Your task to perform on an android device: Open wifi settings Image 0: 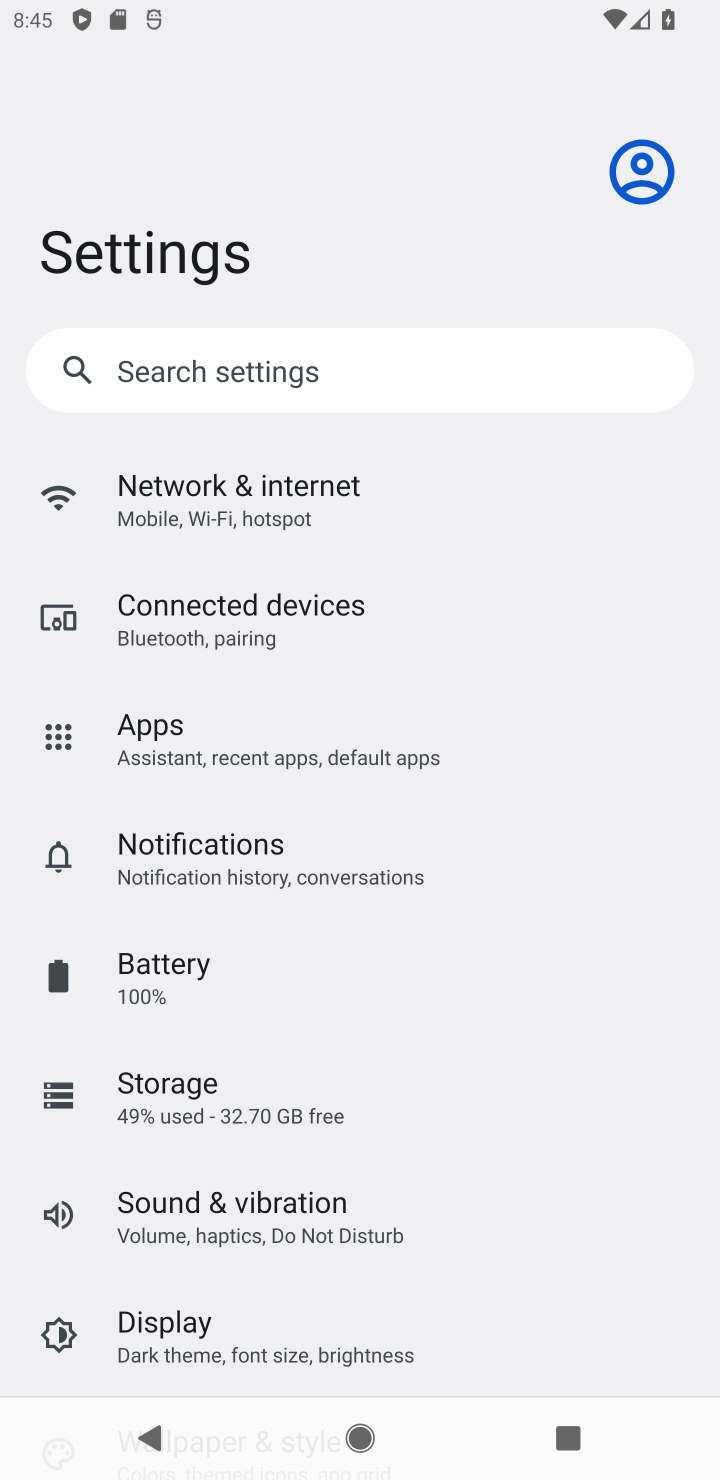
Step 0: click (278, 491)
Your task to perform on an android device: Open wifi settings Image 1: 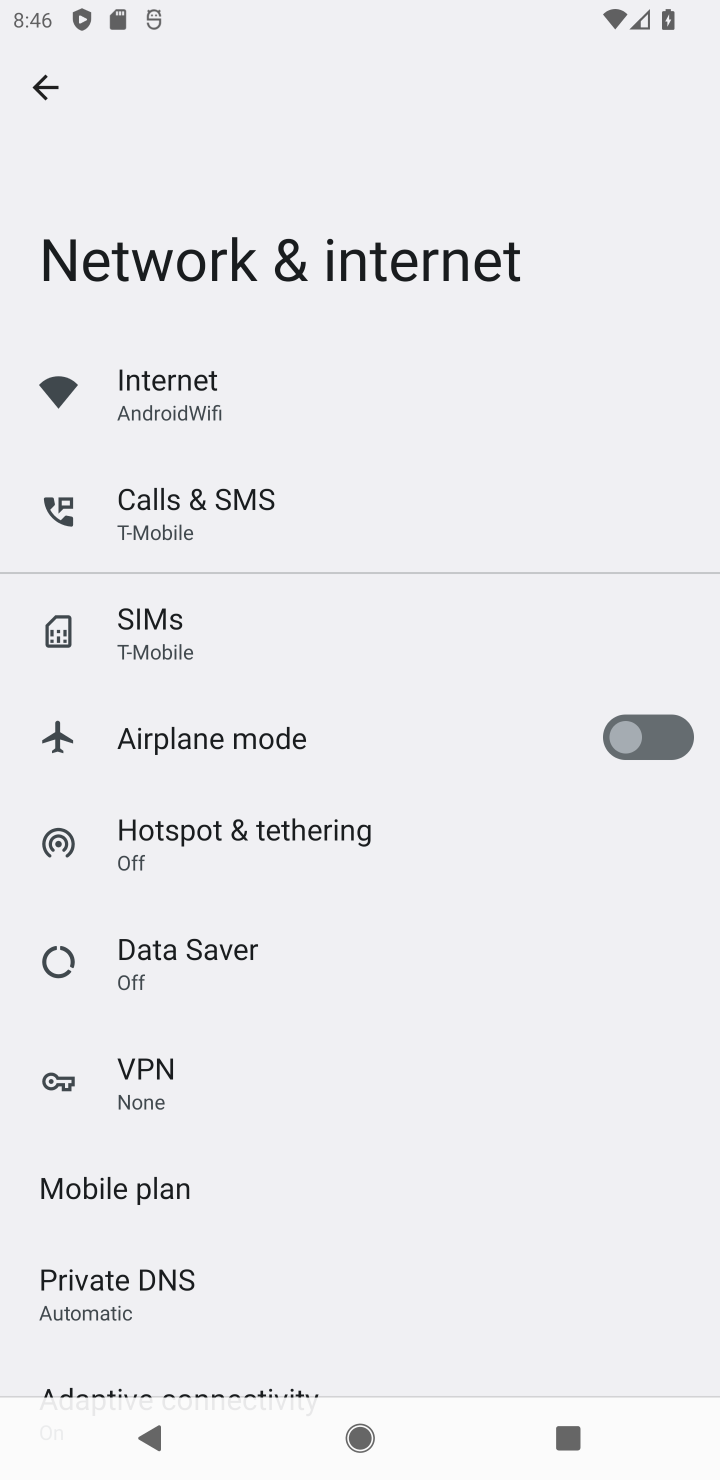
Step 1: click (338, 348)
Your task to perform on an android device: Open wifi settings Image 2: 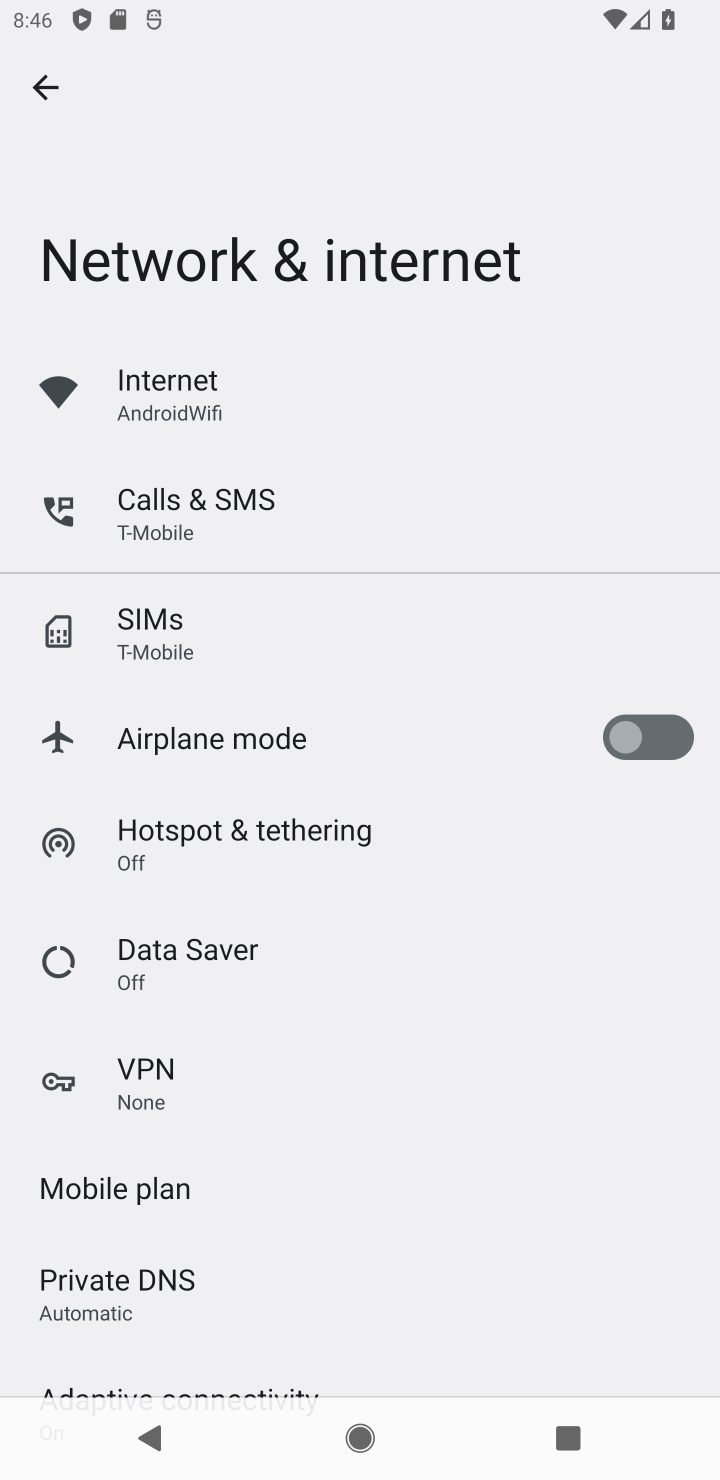
Step 2: click (201, 392)
Your task to perform on an android device: Open wifi settings Image 3: 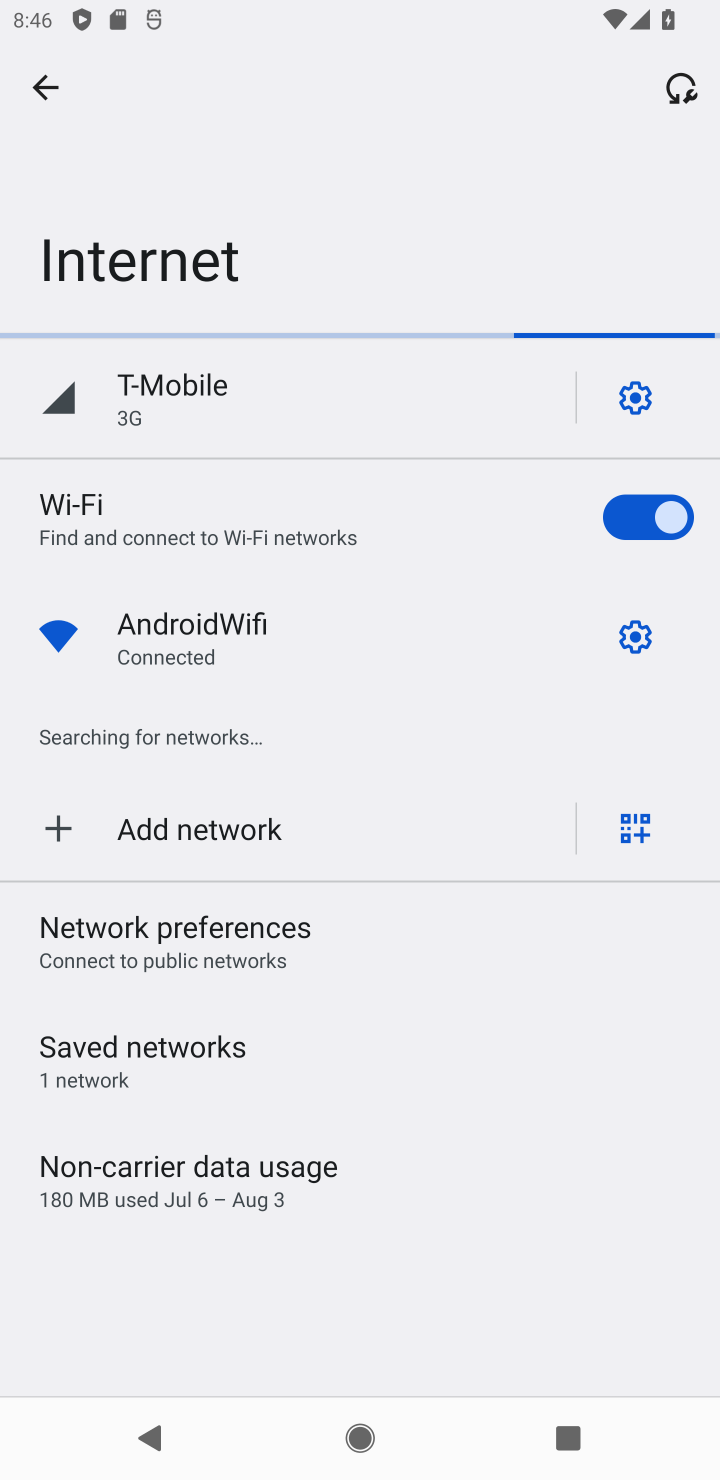
Step 3: click (311, 643)
Your task to perform on an android device: Open wifi settings Image 4: 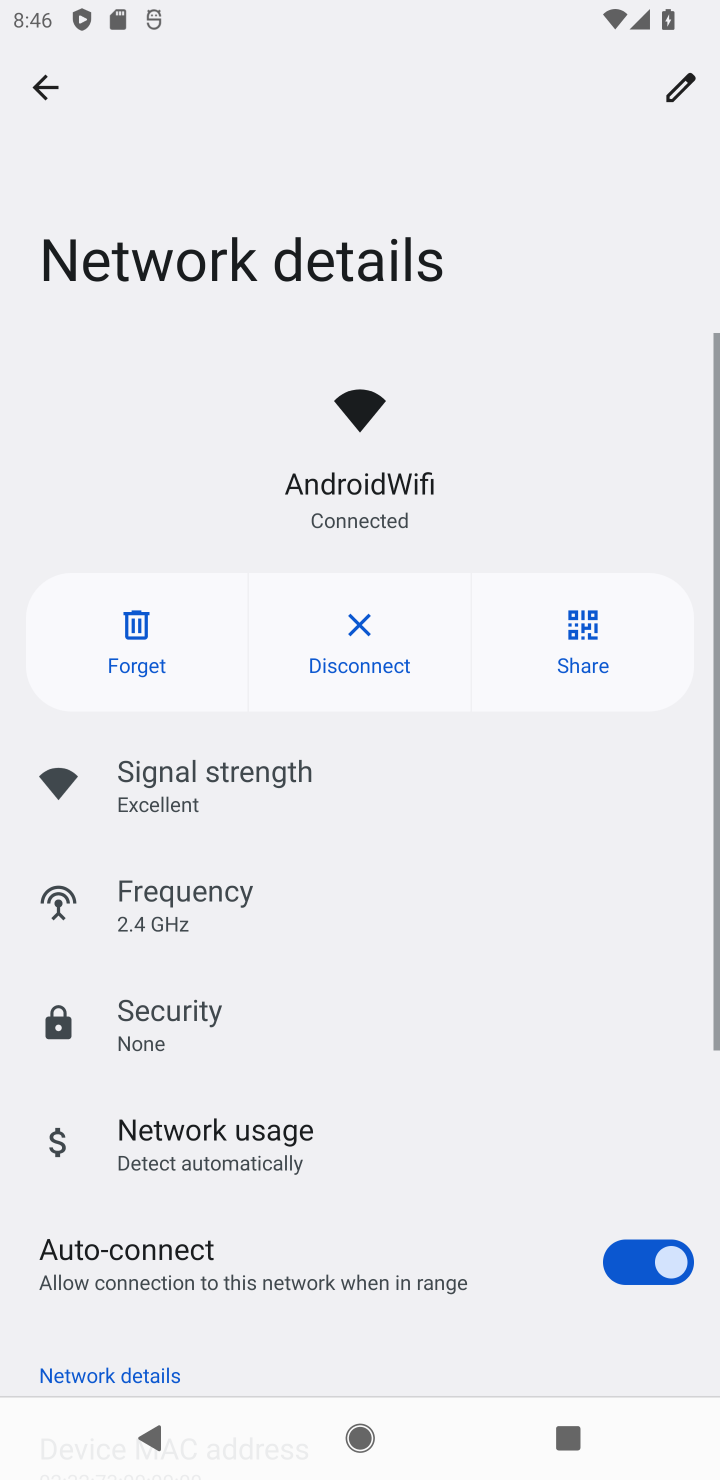
Step 4: task complete